Your task to perform on an android device: When is my next meeting? Image 0: 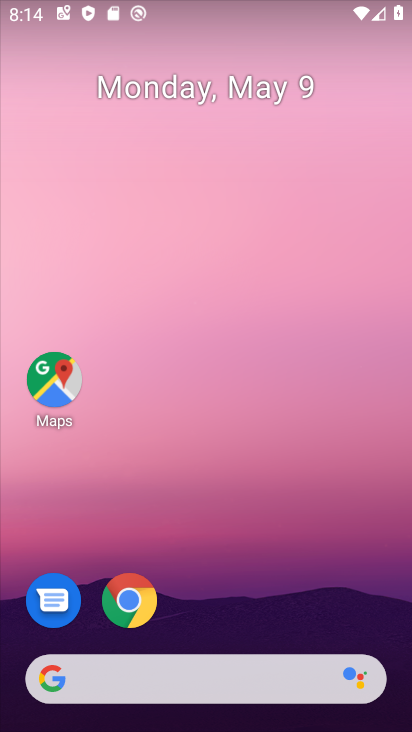
Step 0: drag from (265, 532) to (241, 121)
Your task to perform on an android device: When is my next meeting? Image 1: 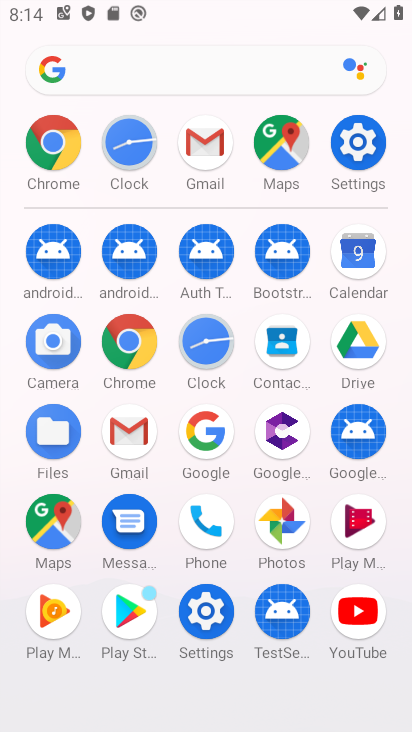
Step 1: drag from (12, 596) to (6, 342)
Your task to perform on an android device: When is my next meeting? Image 2: 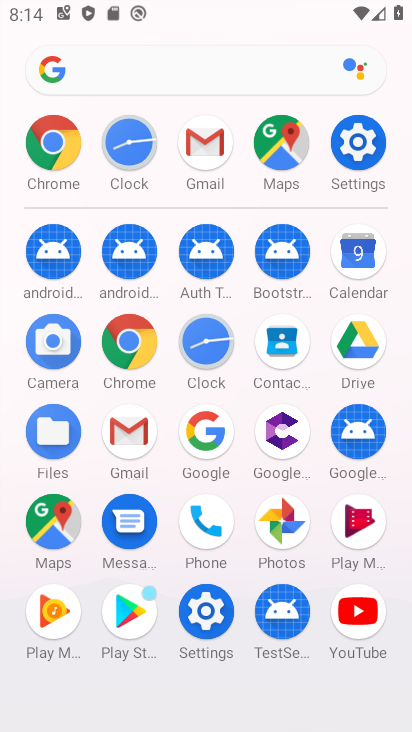
Step 2: click (360, 243)
Your task to perform on an android device: When is my next meeting? Image 3: 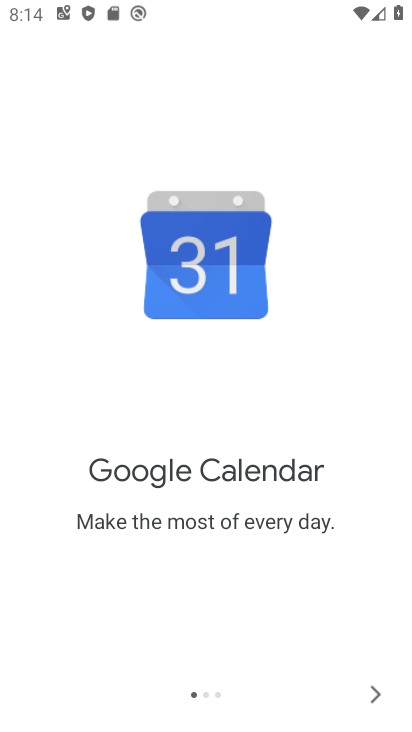
Step 3: click (371, 700)
Your task to perform on an android device: When is my next meeting? Image 4: 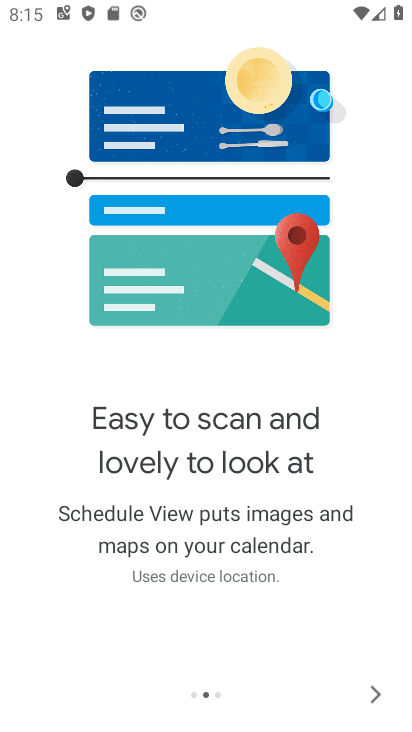
Step 4: click (369, 697)
Your task to perform on an android device: When is my next meeting? Image 5: 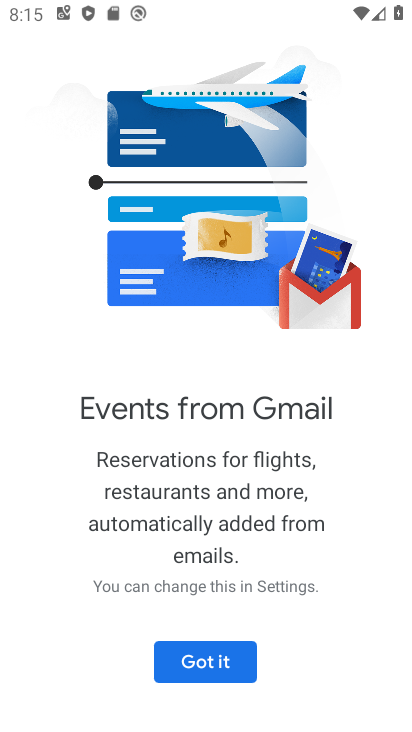
Step 5: click (229, 645)
Your task to perform on an android device: When is my next meeting? Image 6: 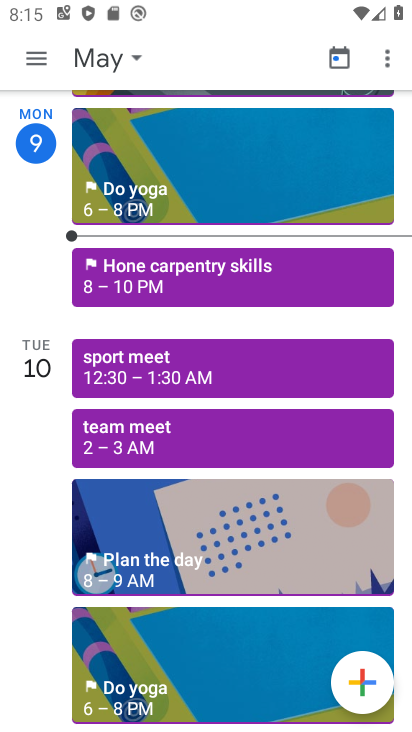
Step 6: drag from (189, 557) to (184, 173)
Your task to perform on an android device: When is my next meeting? Image 7: 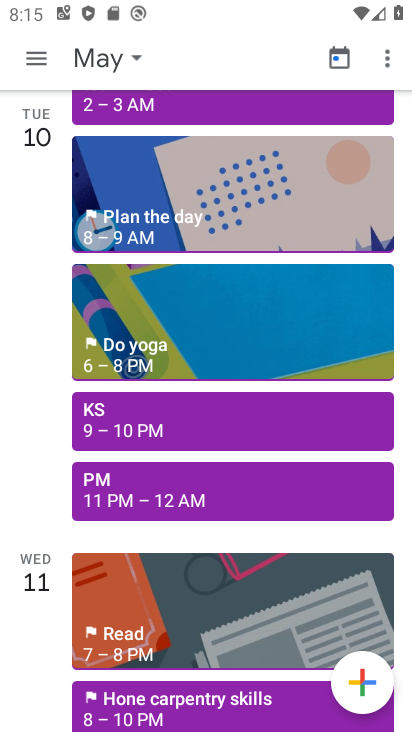
Step 7: click (30, 53)
Your task to perform on an android device: When is my next meeting? Image 8: 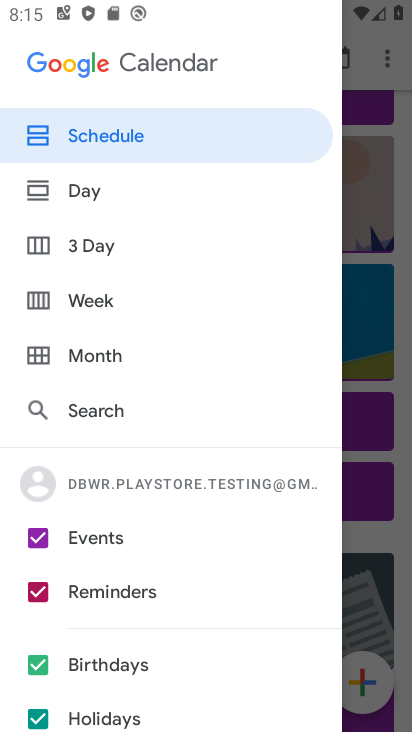
Step 8: click (123, 141)
Your task to perform on an android device: When is my next meeting? Image 9: 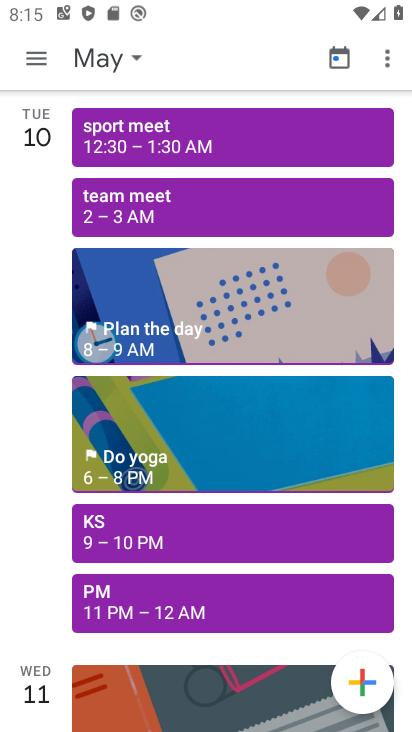
Step 9: task complete